Your task to perform on an android device: turn on priority inbox in the gmail app Image 0: 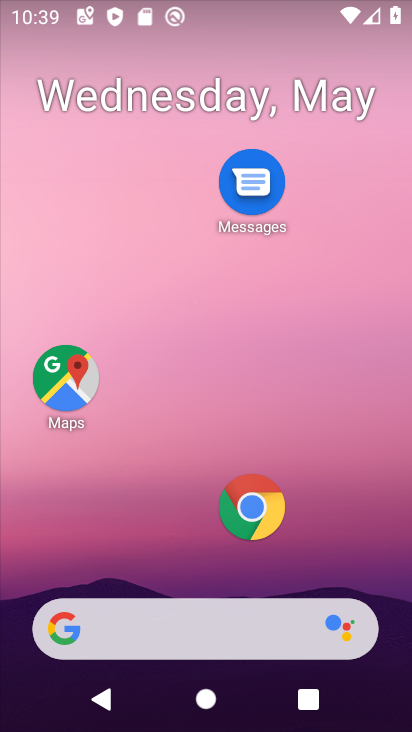
Step 0: drag from (203, 573) to (191, 79)
Your task to perform on an android device: turn on priority inbox in the gmail app Image 1: 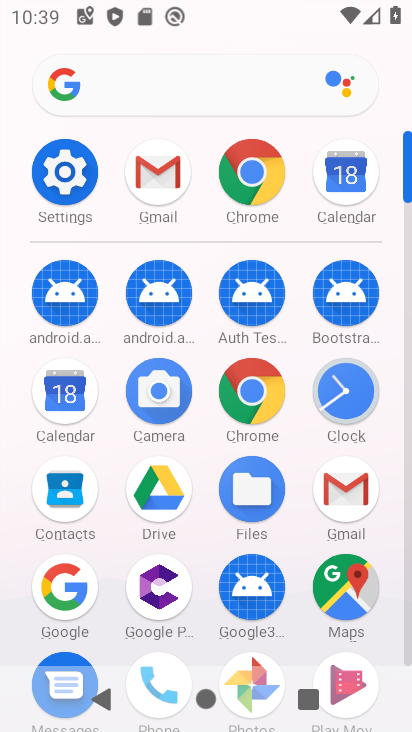
Step 1: click (342, 482)
Your task to perform on an android device: turn on priority inbox in the gmail app Image 2: 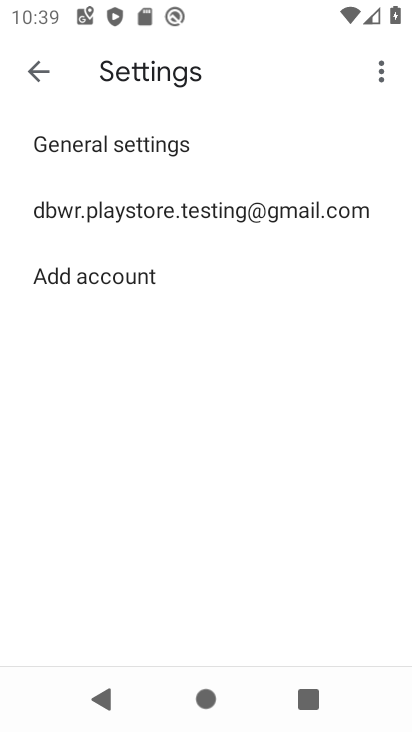
Step 2: click (207, 214)
Your task to perform on an android device: turn on priority inbox in the gmail app Image 3: 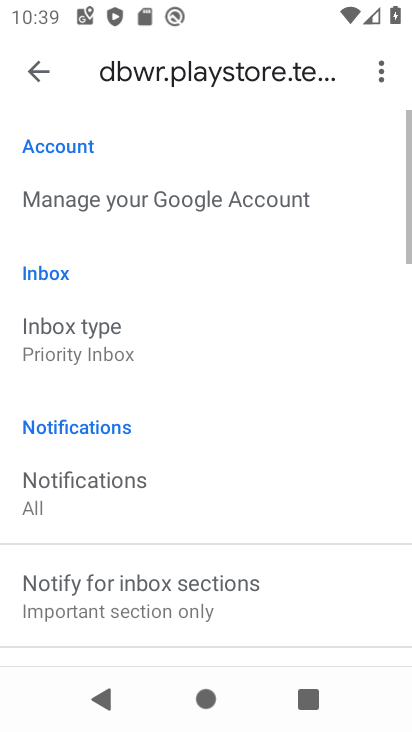
Step 3: click (151, 340)
Your task to perform on an android device: turn on priority inbox in the gmail app Image 4: 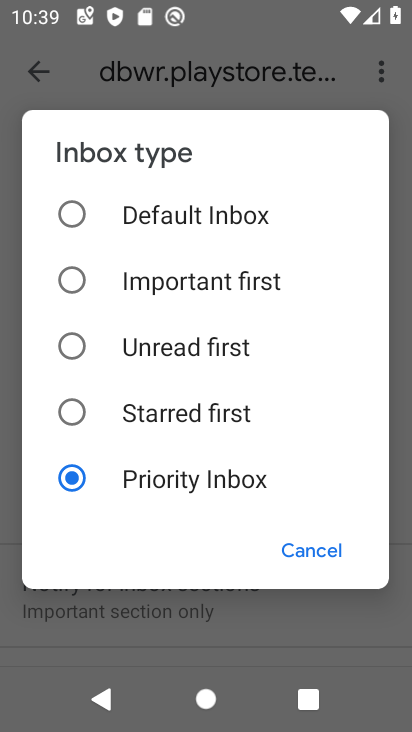
Step 4: task complete